Your task to perform on an android device: Open the Play Movies app and select the watchlist tab. Image 0: 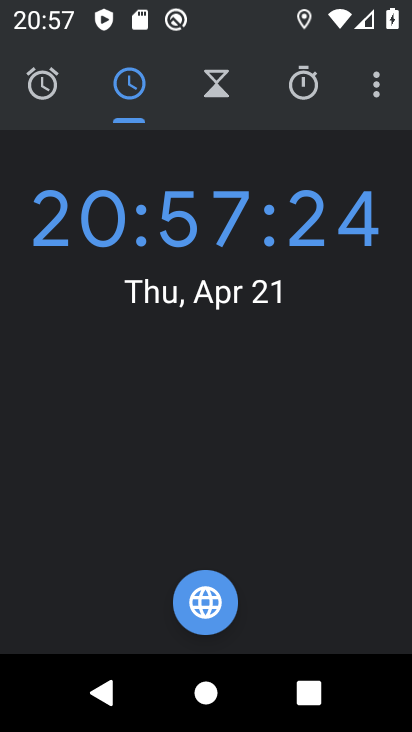
Step 0: press home button
Your task to perform on an android device: Open the Play Movies app and select the watchlist tab. Image 1: 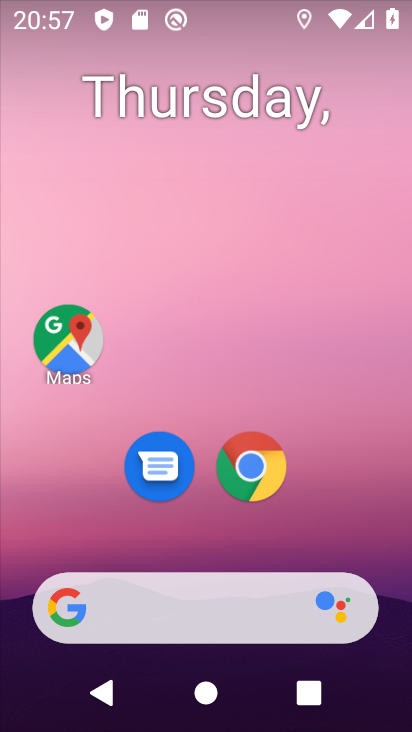
Step 1: drag from (220, 549) to (243, 5)
Your task to perform on an android device: Open the Play Movies app and select the watchlist tab. Image 2: 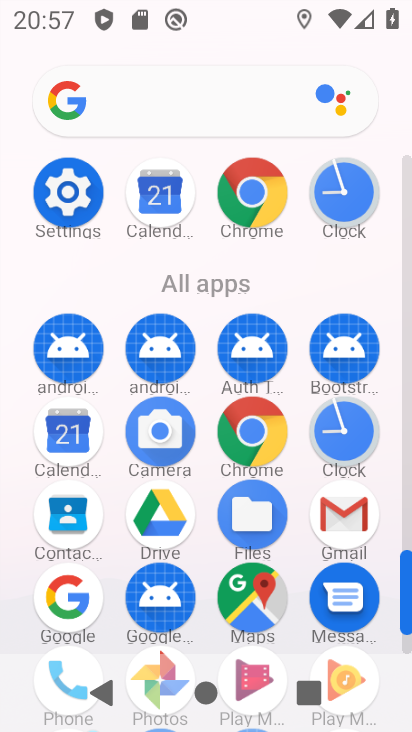
Step 2: drag from (199, 563) to (157, 146)
Your task to perform on an android device: Open the Play Movies app and select the watchlist tab. Image 3: 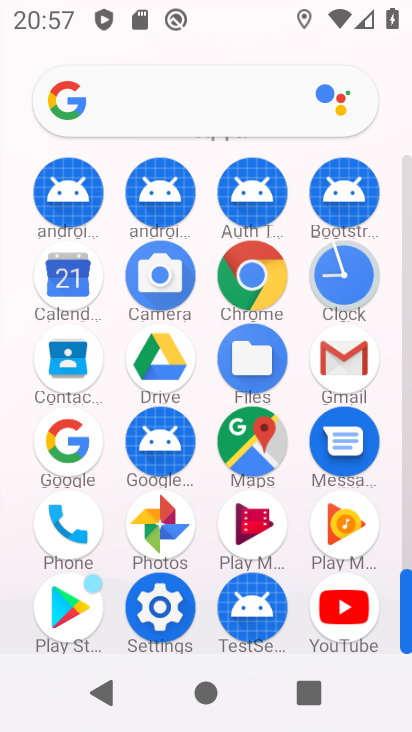
Step 3: click (257, 526)
Your task to perform on an android device: Open the Play Movies app and select the watchlist tab. Image 4: 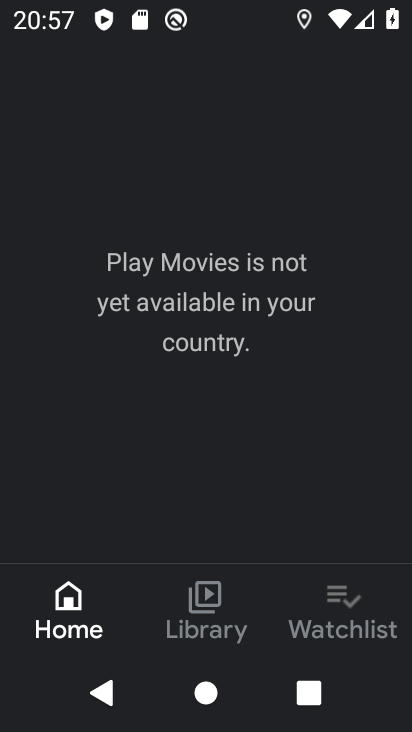
Step 4: click (365, 606)
Your task to perform on an android device: Open the Play Movies app and select the watchlist tab. Image 5: 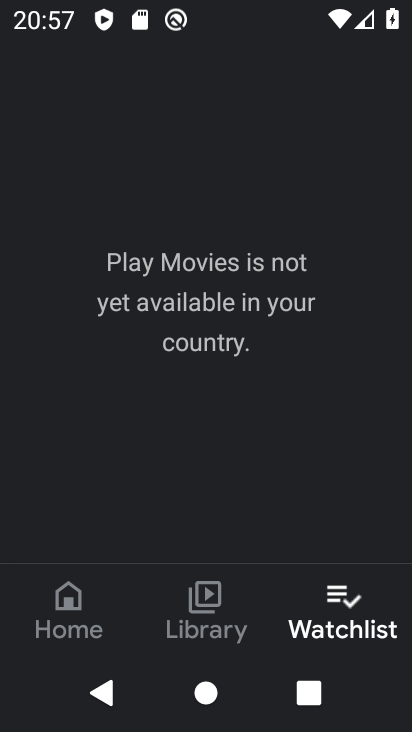
Step 5: task complete